Your task to perform on an android device: make emails show in primary in the gmail app Image 0: 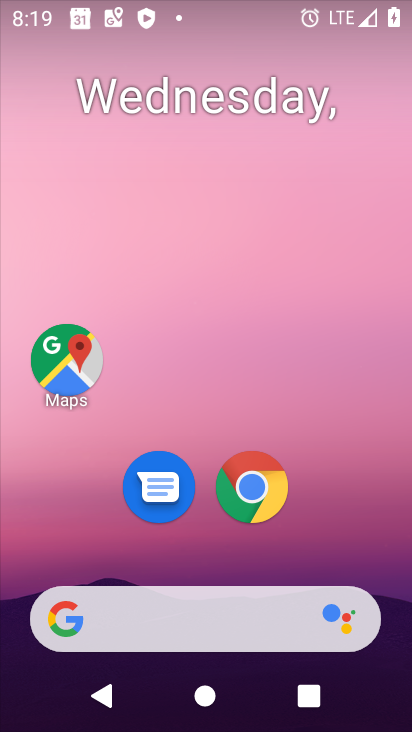
Step 0: drag from (359, 574) to (330, 4)
Your task to perform on an android device: make emails show in primary in the gmail app Image 1: 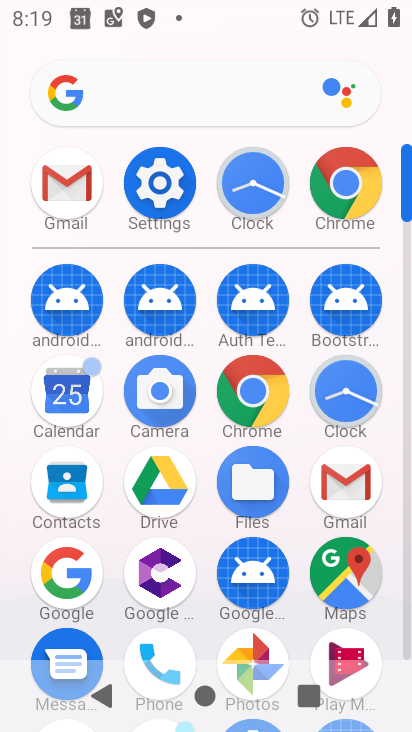
Step 1: click (62, 191)
Your task to perform on an android device: make emails show in primary in the gmail app Image 2: 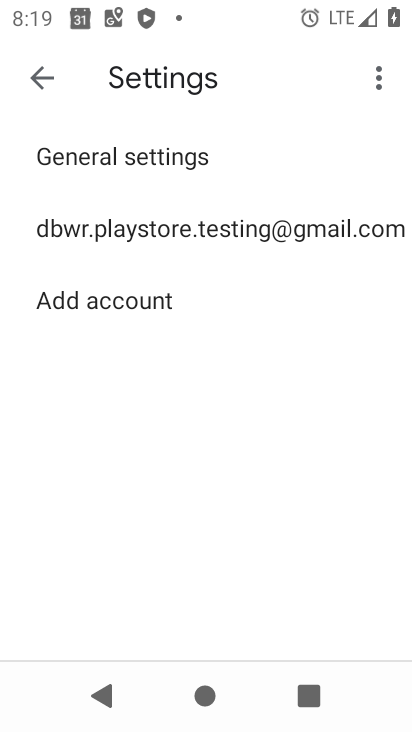
Step 2: click (99, 222)
Your task to perform on an android device: make emails show in primary in the gmail app Image 3: 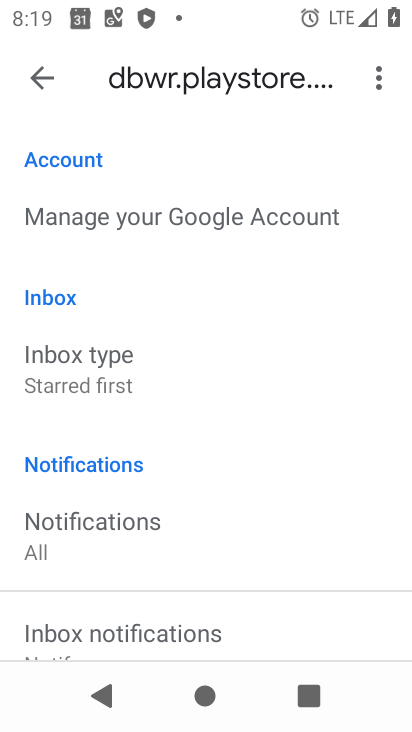
Step 3: task complete